Your task to perform on an android device: refresh tabs in the chrome app Image 0: 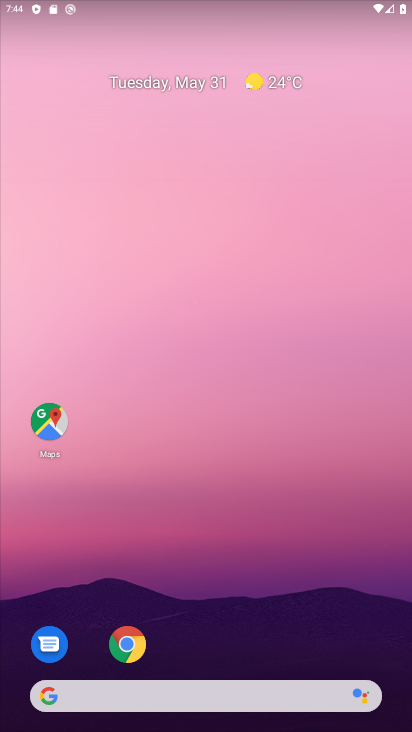
Step 0: click (129, 647)
Your task to perform on an android device: refresh tabs in the chrome app Image 1: 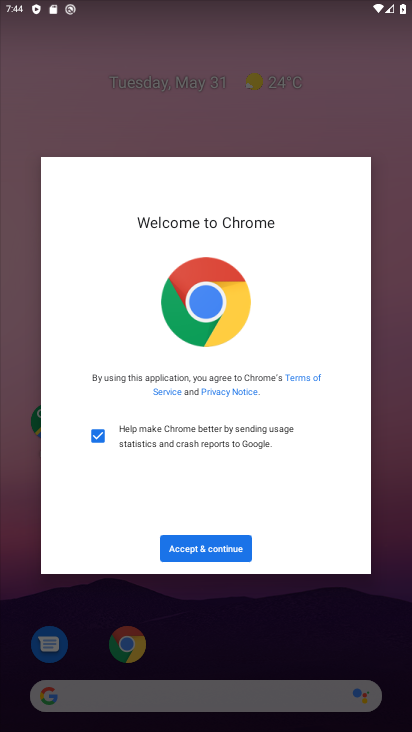
Step 1: click (235, 549)
Your task to perform on an android device: refresh tabs in the chrome app Image 2: 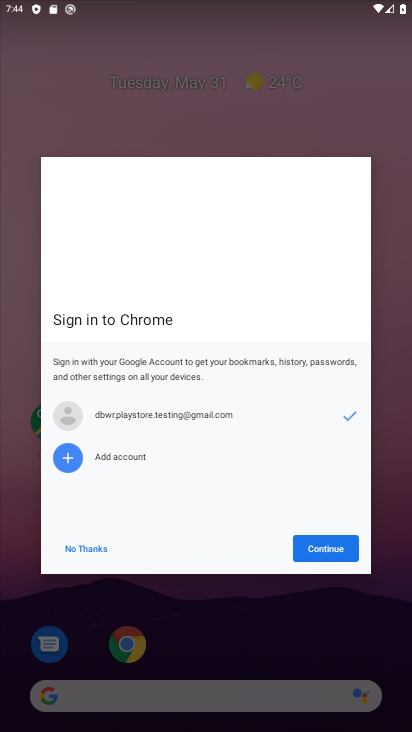
Step 2: click (329, 552)
Your task to perform on an android device: refresh tabs in the chrome app Image 3: 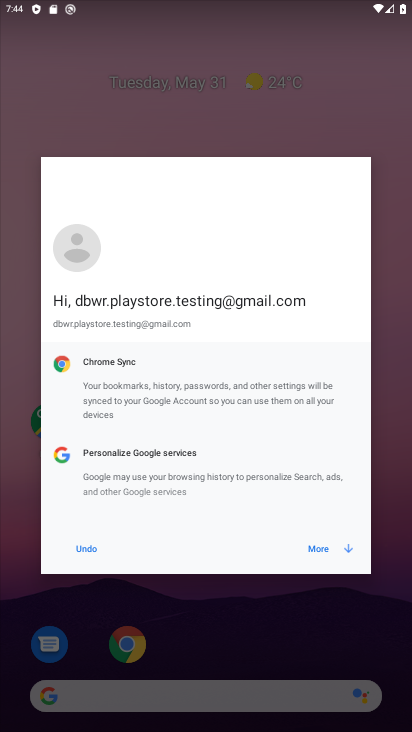
Step 3: click (325, 551)
Your task to perform on an android device: refresh tabs in the chrome app Image 4: 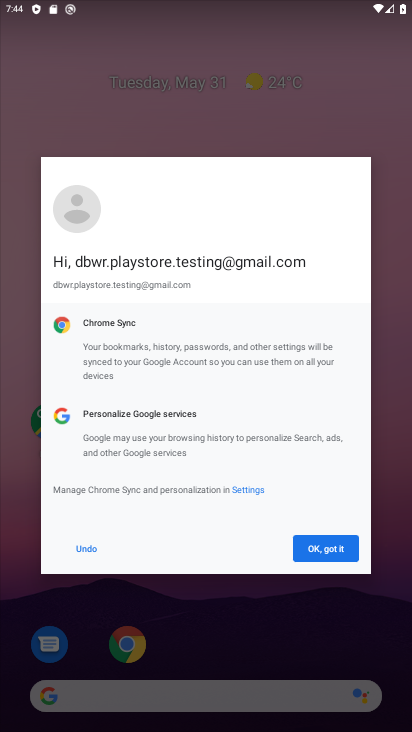
Step 4: click (322, 552)
Your task to perform on an android device: refresh tabs in the chrome app Image 5: 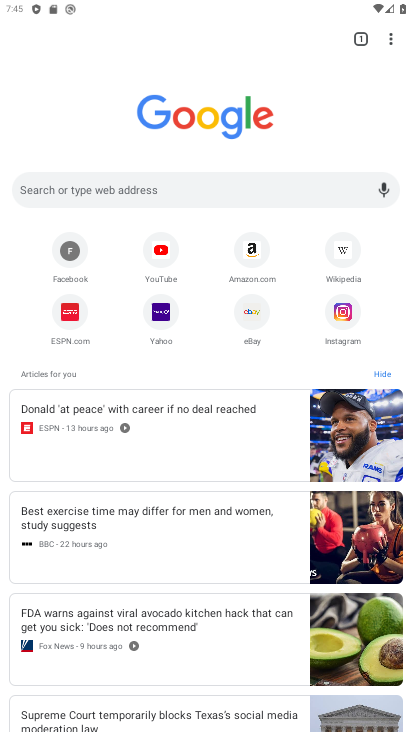
Step 5: click (391, 36)
Your task to perform on an android device: refresh tabs in the chrome app Image 6: 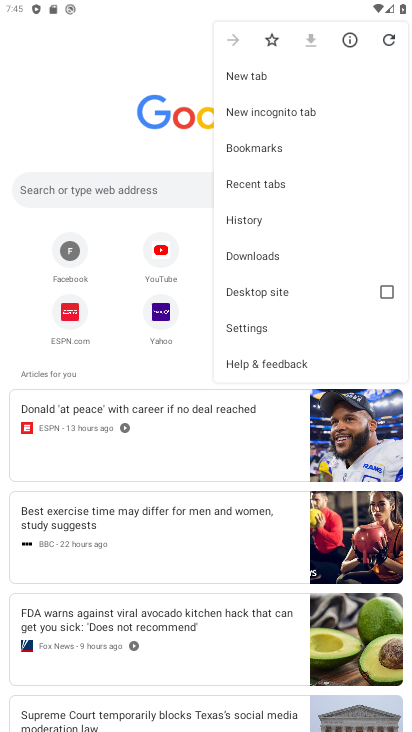
Step 6: click (387, 40)
Your task to perform on an android device: refresh tabs in the chrome app Image 7: 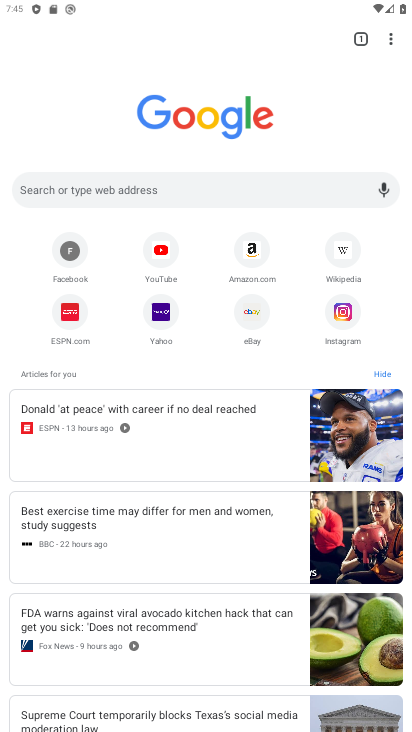
Step 7: task complete